Your task to perform on an android device: Search for macbook pro 13 inch on ebay, select the first entry, add it to the cart, then select checkout. Image 0: 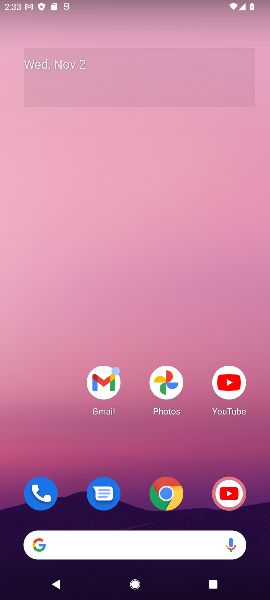
Step 0: click (157, 503)
Your task to perform on an android device: Search for macbook pro 13 inch on ebay, select the first entry, add it to the cart, then select checkout. Image 1: 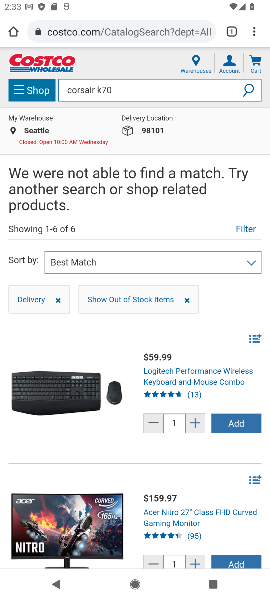
Step 1: click (131, 27)
Your task to perform on an android device: Search for macbook pro 13 inch on ebay, select the first entry, add it to the cart, then select checkout. Image 2: 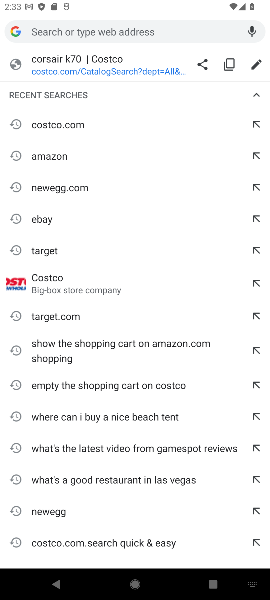
Step 2: type "ebay"
Your task to perform on an android device: Search for macbook pro 13 inch on ebay, select the first entry, add it to the cart, then select checkout. Image 3: 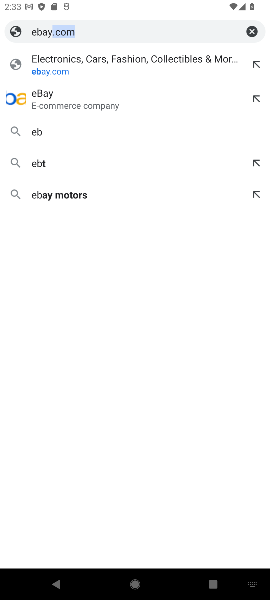
Step 3: press enter
Your task to perform on an android device: Search for macbook pro 13 inch on ebay, select the first entry, add it to the cart, then select checkout. Image 4: 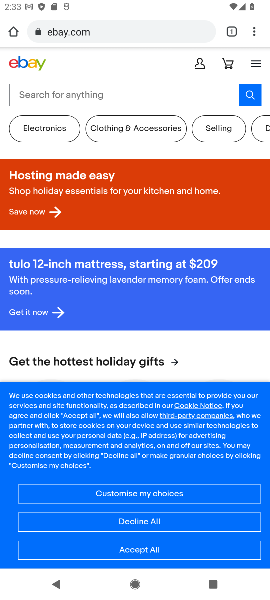
Step 4: press enter
Your task to perform on an android device: Search for macbook pro 13 inch on ebay, select the first entry, add it to the cart, then select checkout. Image 5: 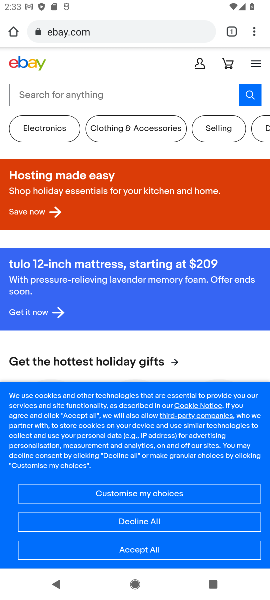
Step 5: type " macbook pro 13 inch"
Your task to perform on an android device: Search for macbook pro 13 inch on ebay, select the first entry, add it to the cart, then select checkout. Image 6: 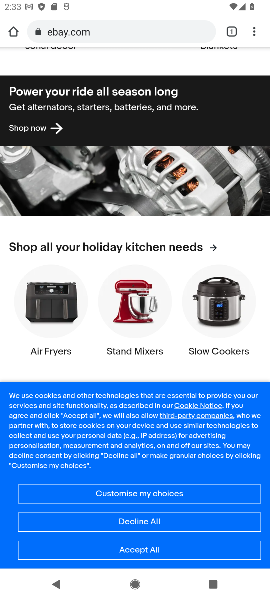
Step 6: drag from (149, 132) to (186, 508)
Your task to perform on an android device: Search for macbook pro 13 inch on ebay, select the first entry, add it to the cart, then select checkout. Image 7: 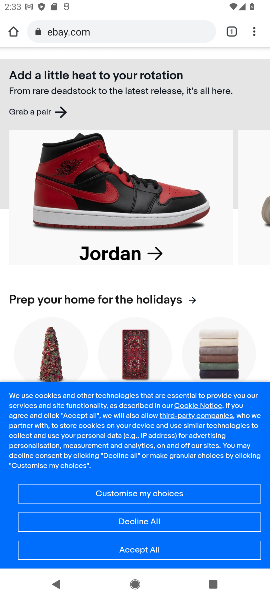
Step 7: drag from (178, 103) to (225, 461)
Your task to perform on an android device: Search for macbook pro 13 inch on ebay, select the first entry, add it to the cart, then select checkout. Image 8: 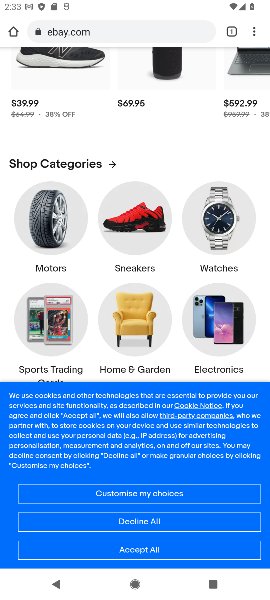
Step 8: drag from (162, 145) to (254, 562)
Your task to perform on an android device: Search for macbook pro 13 inch on ebay, select the first entry, add it to the cart, then select checkout. Image 9: 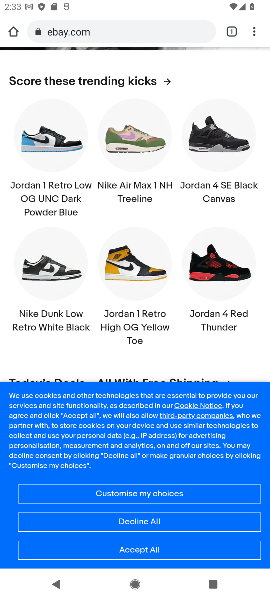
Step 9: click (145, 545)
Your task to perform on an android device: Search for macbook pro 13 inch on ebay, select the first entry, add it to the cart, then select checkout. Image 10: 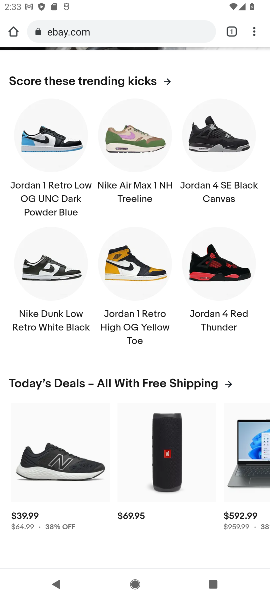
Step 10: drag from (154, 130) to (242, 596)
Your task to perform on an android device: Search for macbook pro 13 inch on ebay, select the first entry, add it to the cart, then select checkout. Image 11: 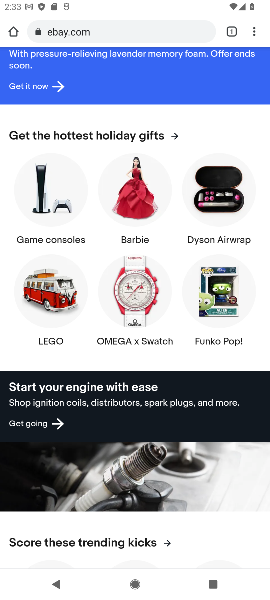
Step 11: drag from (157, 81) to (160, 490)
Your task to perform on an android device: Search for macbook pro 13 inch on ebay, select the first entry, add it to the cart, then select checkout. Image 12: 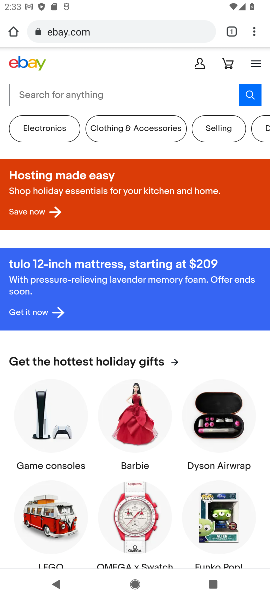
Step 12: click (254, 93)
Your task to perform on an android device: Search for macbook pro 13 inch on ebay, select the first entry, add it to the cart, then select checkout. Image 13: 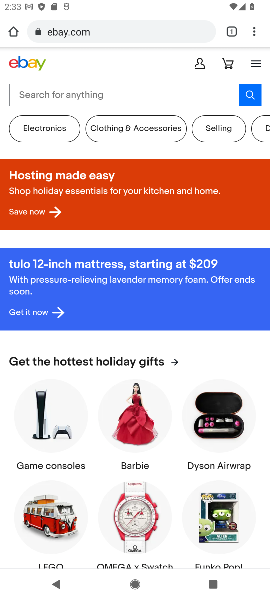
Step 13: click (155, 93)
Your task to perform on an android device: Search for macbook pro 13 inch on ebay, select the first entry, add it to the cart, then select checkout. Image 14: 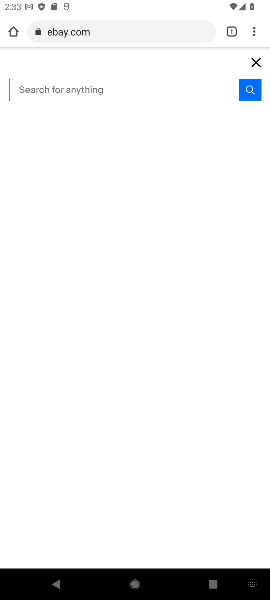
Step 14: type " macbook pro 13 inch"
Your task to perform on an android device: Search for macbook pro 13 inch on ebay, select the first entry, add it to the cart, then select checkout. Image 15: 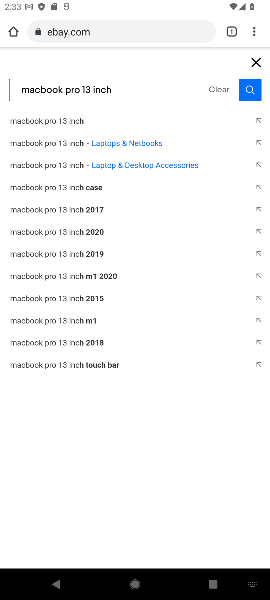
Step 15: click (56, 116)
Your task to perform on an android device: Search for macbook pro 13 inch on ebay, select the first entry, add it to the cart, then select checkout. Image 16: 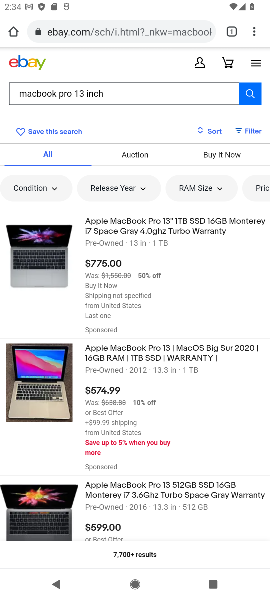
Step 16: click (42, 263)
Your task to perform on an android device: Search for macbook pro 13 inch on ebay, select the first entry, add it to the cart, then select checkout. Image 17: 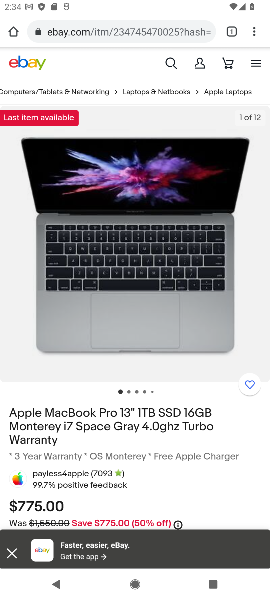
Step 17: drag from (157, 439) to (151, 243)
Your task to perform on an android device: Search for macbook pro 13 inch on ebay, select the first entry, add it to the cart, then select checkout. Image 18: 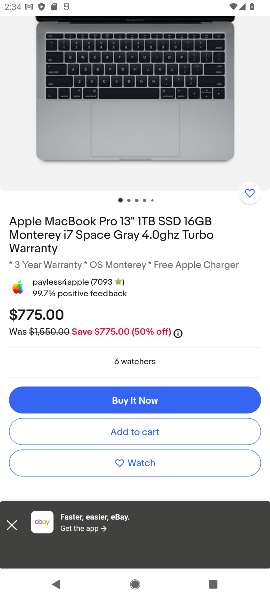
Step 18: click (138, 430)
Your task to perform on an android device: Search for macbook pro 13 inch on ebay, select the first entry, add it to the cart, then select checkout. Image 19: 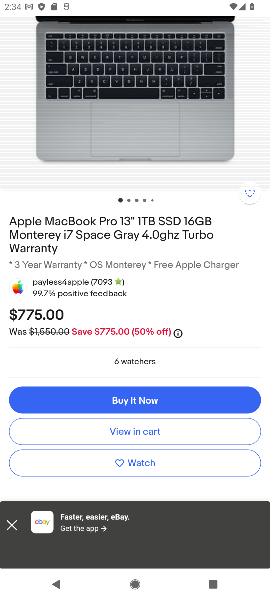
Step 19: click (138, 430)
Your task to perform on an android device: Search for macbook pro 13 inch on ebay, select the first entry, add it to the cart, then select checkout. Image 20: 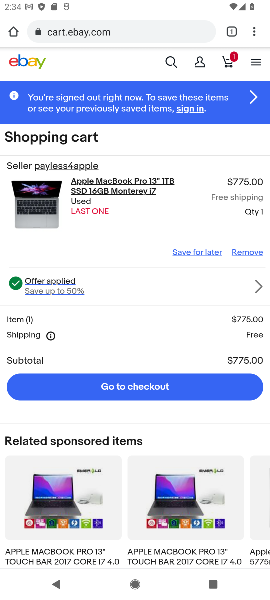
Step 20: click (143, 382)
Your task to perform on an android device: Search for macbook pro 13 inch on ebay, select the first entry, add it to the cart, then select checkout. Image 21: 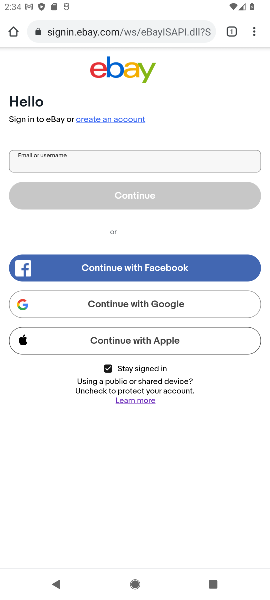
Step 21: task complete